Your task to perform on an android device: Is it going to rain tomorrow? Image 0: 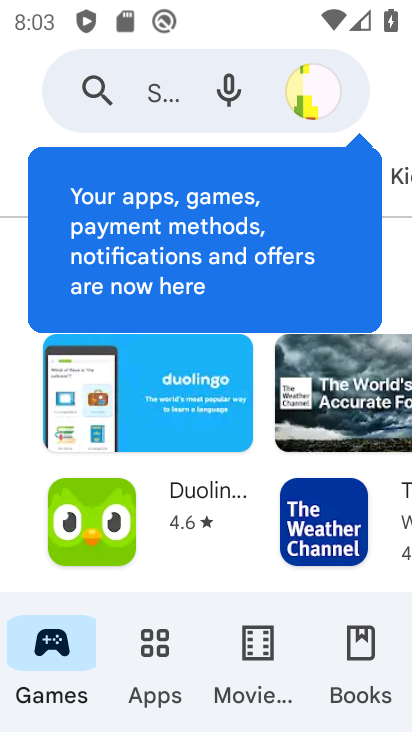
Step 0: drag from (261, 565) to (296, 267)
Your task to perform on an android device: Is it going to rain tomorrow? Image 1: 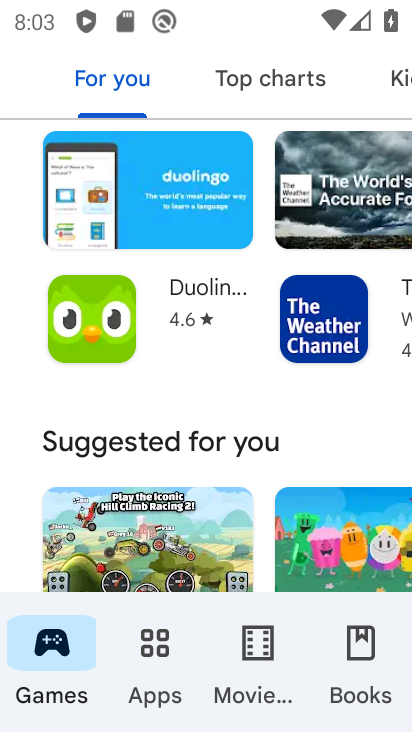
Step 1: press home button
Your task to perform on an android device: Is it going to rain tomorrow? Image 2: 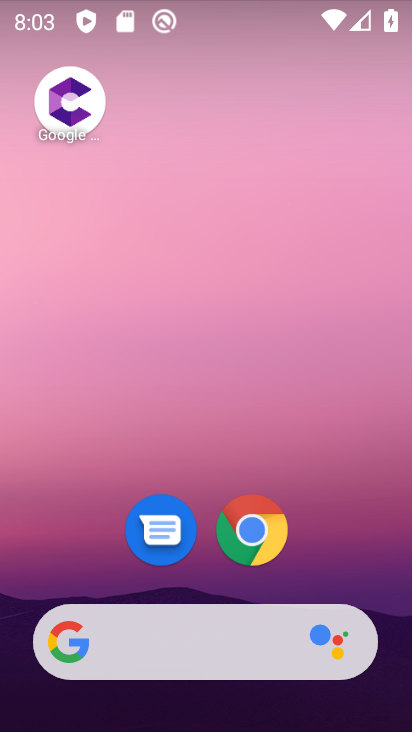
Step 2: click (267, 537)
Your task to perform on an android device: Is it going to rain tomorrow? Image 3: 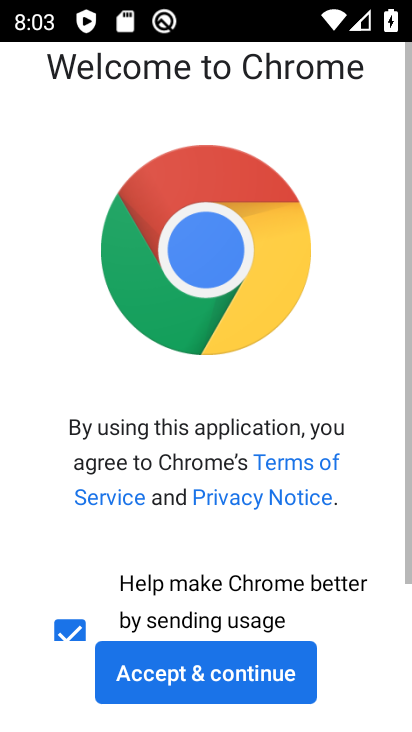
Step 3: click (279, 670)
Your task to perform on an android device: Is it going to rain tomorrow? Image 4: 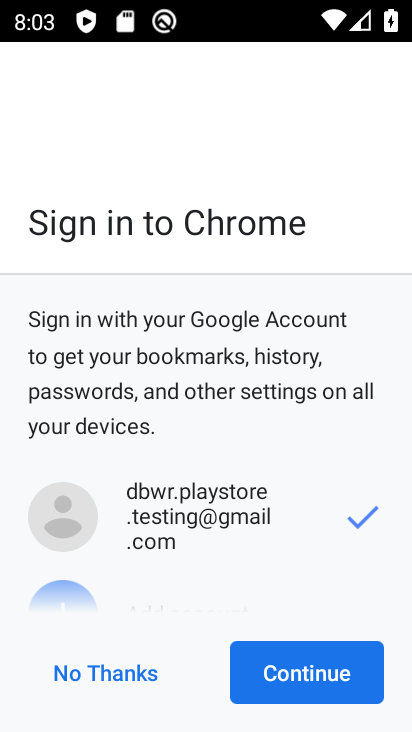
Step 4: click (278, 671)
Your task to perform on an android device: Is it going to rain tomorrow? Image 5: 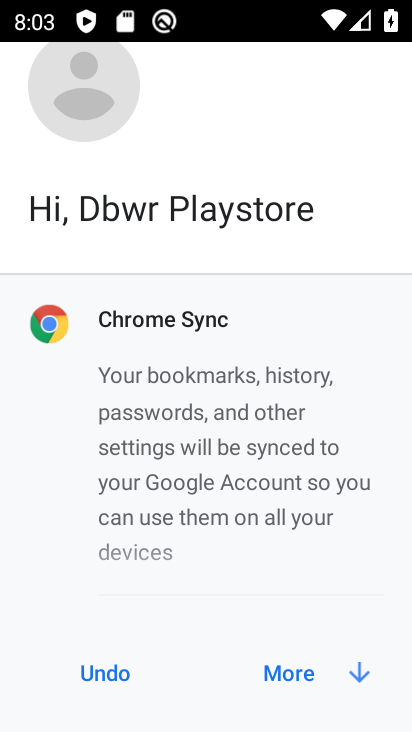
Step 5: click (279, 670)
Your task to perform on an android device: Is it going to rain tomorrow? Image 6: 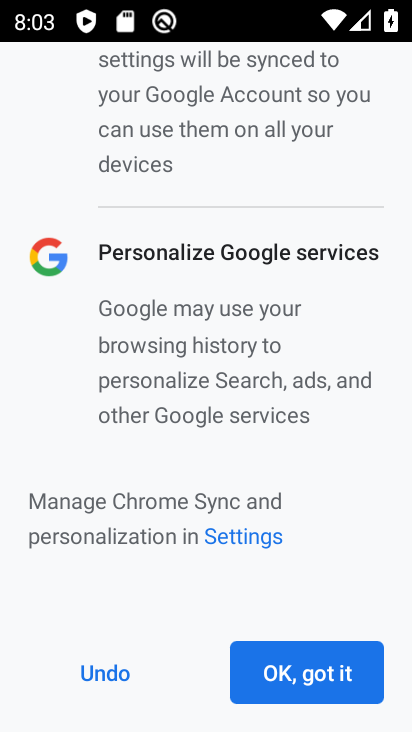
Step 6: click (279, 670)
Your task to perform on an android device: Is it going to rain tomorrow? Image 7: 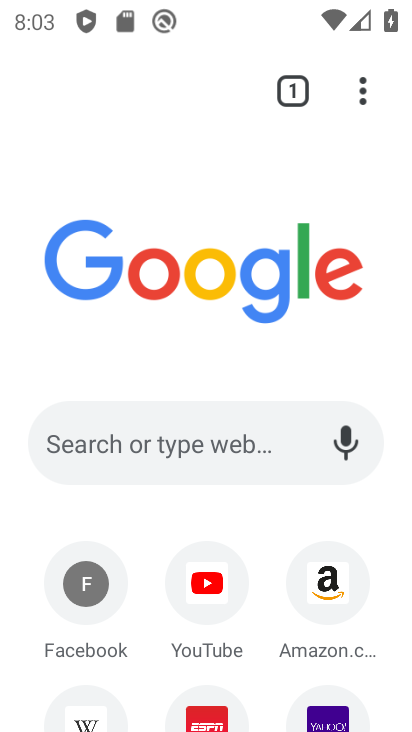
Step 7: click (197, 442)
Your task to perform on an android device: Is it going to rain tomorrow? Image 8: 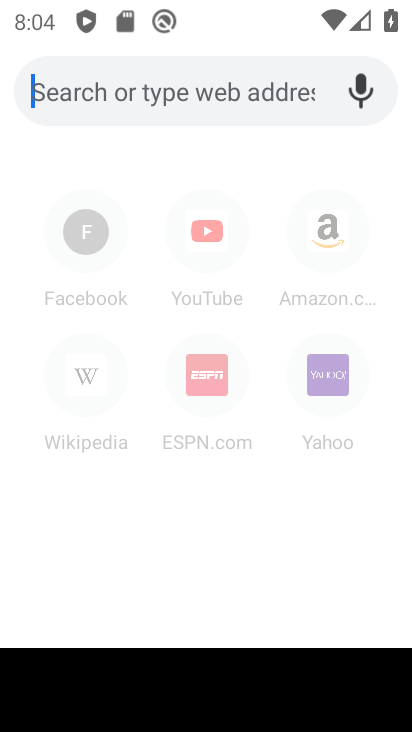
Step 8: type "is it going to rain tomorrow"
Your task to perform on an android device: Is it going to rain tomorrow? Image 9: 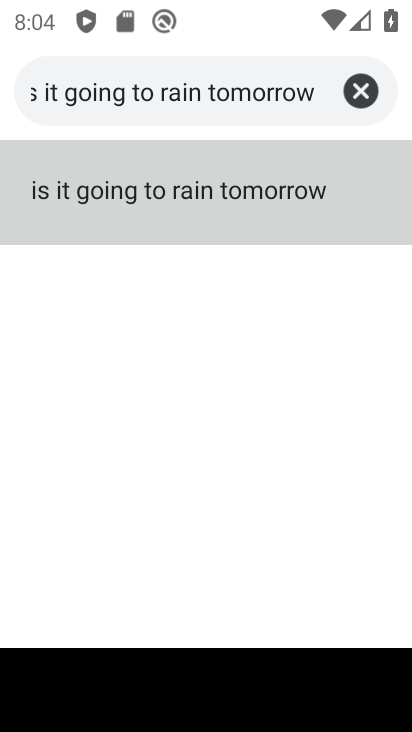
Step 9: click (112, 197)
Your task to perform on an android device: Is it going to rain tomorrow? Image 10: 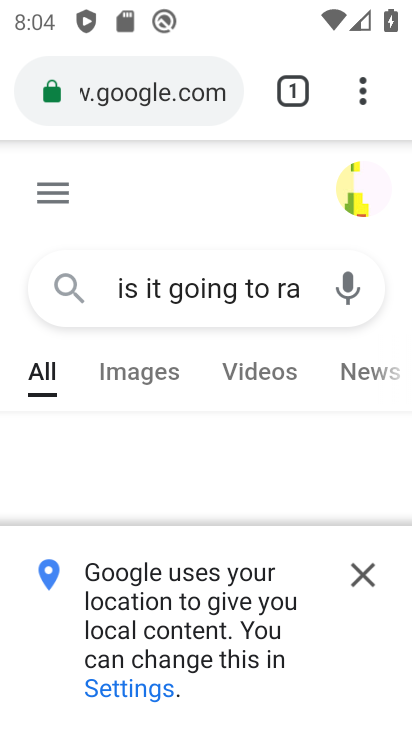
Step 10: click (359, 579)
Your task to perform on an android device: Is it going to rain tomorrow? Image 11: 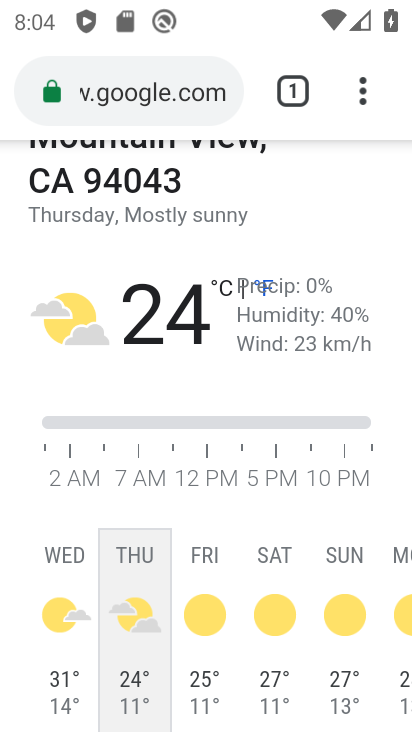
Step 11: task complete